Your task to perform on an android device: turn on showing notifications on the lock screen Image 0: 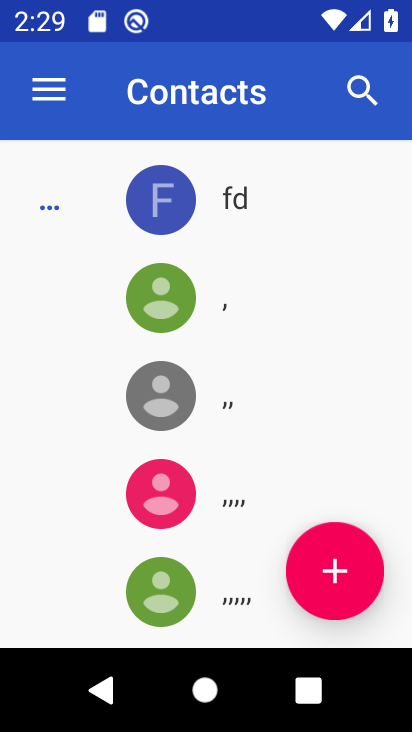
Step 0: drag from (244, 564) to (395, 150)
Your task to perform on an android device: turn on showing notifications on the lock screen Image 1: 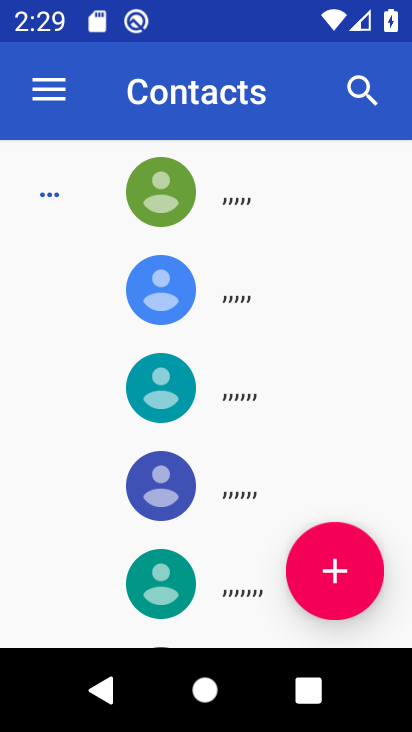
Step 1: drag from (225, 596) to (248, 226)
Your task to perform on an android device: turn on showing notifications on the lock screen Image 2: 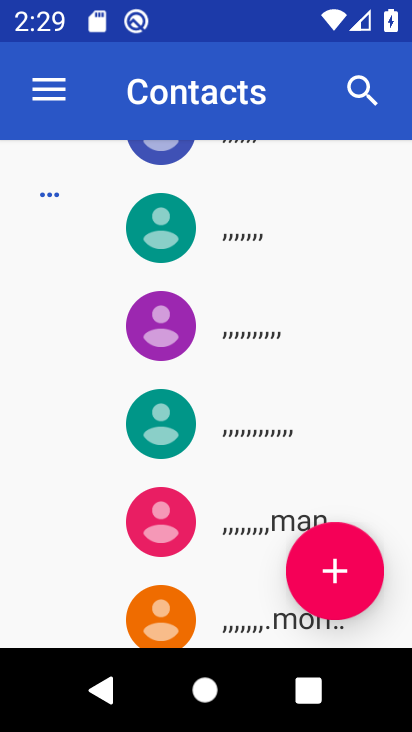
Step 2: drag from (234, 573) to (313, 194)
Your task to perform on an android device: turn on showing notifications on the lock screen Image 3: 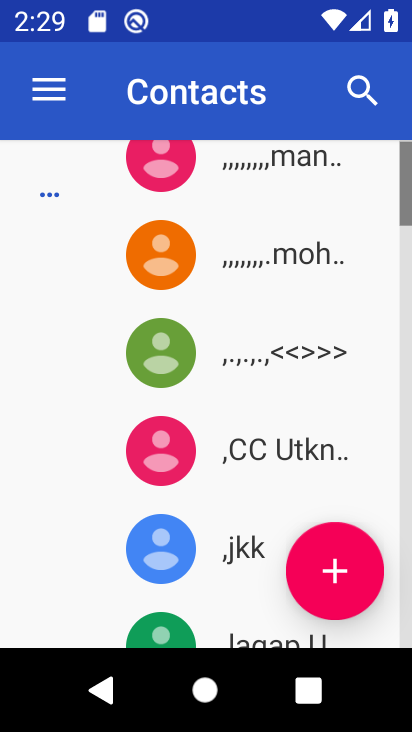
Step 3: drag from (222, 433) to (255, 276)
Your task to perform on an android device: turn on showing notifications on the lock screen Image 4: 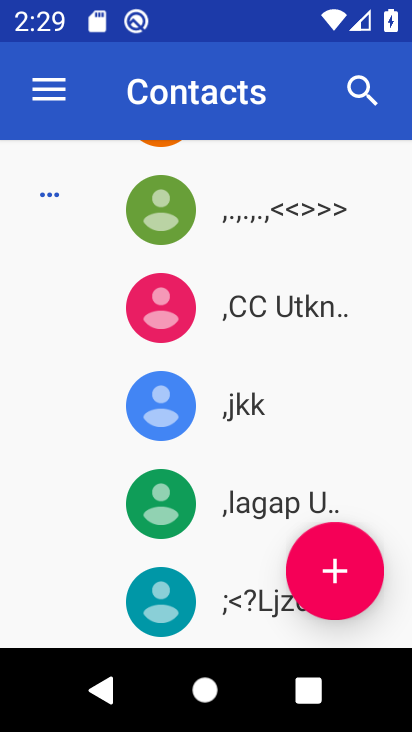
Step 4: press home button
Your task to perform on an android device: turn on showing notifications on the lock screen Image 5: 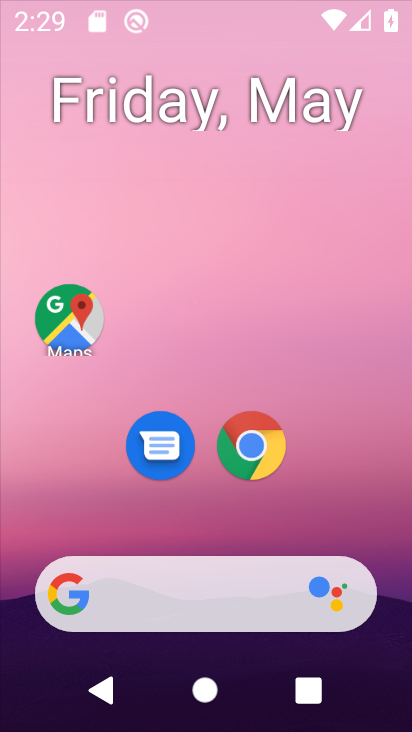
Step 5: drag from (214, 525) to (238, 152)
Your task to perform on an android device: turn on showing notifications on the lock screen Image 6: 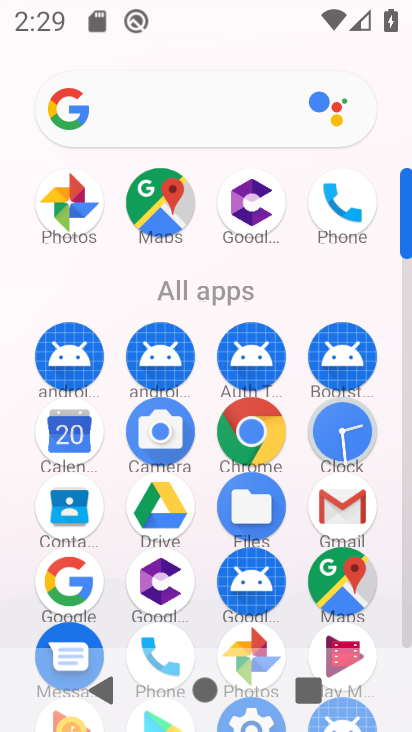
Step 6: drag from (214, 632) to (221, 130)
Your task to perform on an android device: turn on showing notifications on the lock screen Image 7: 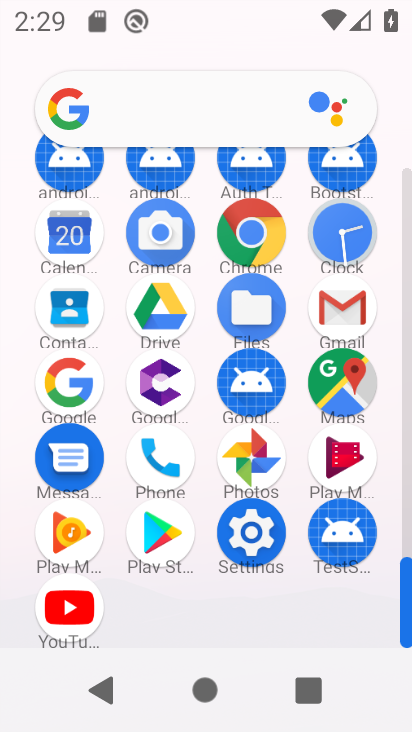
Step 7: drag from (207, 597) to (184, 267)
Your task to perform on an android device: turn on showing notifications on the lock screen Image 8: 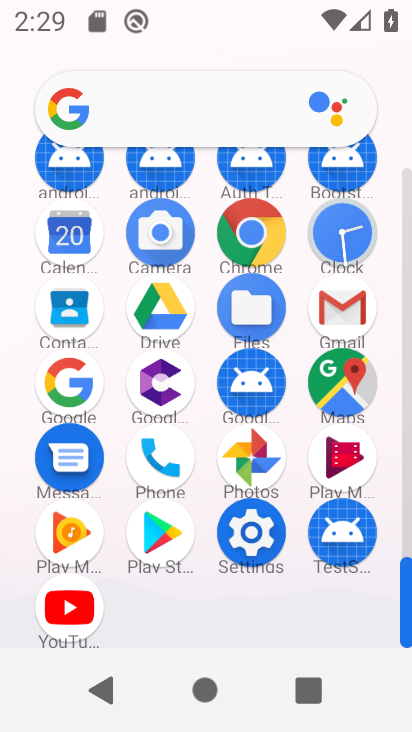
Step 8: click (257, 539)
Your task to perform on an android device: turn on showing notifications on the lock screen Image 9: 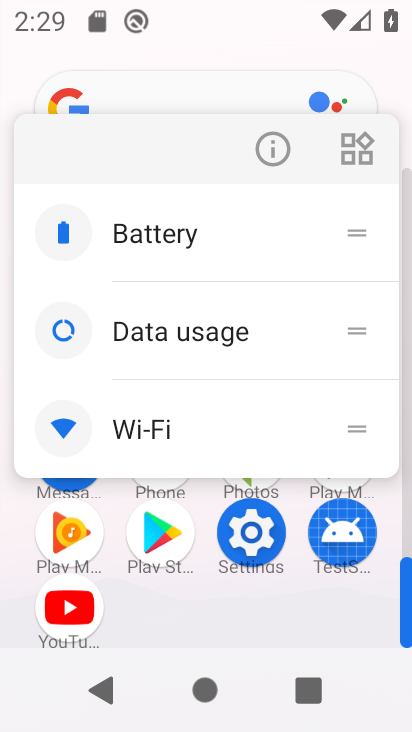
Step 9: click (274, 108)
Your task to perform on an android device: turn on showing notifications on the lock screen Image 10: 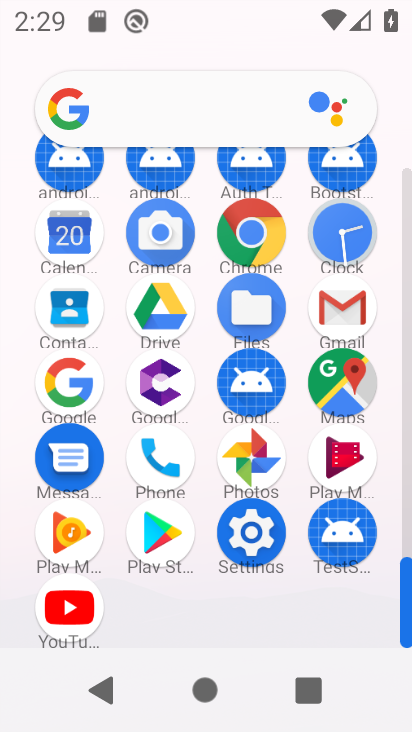
Step 10: click (262, 534)
Your task to perform on an android device: turn on showing notifications on the lock screen Image 11: 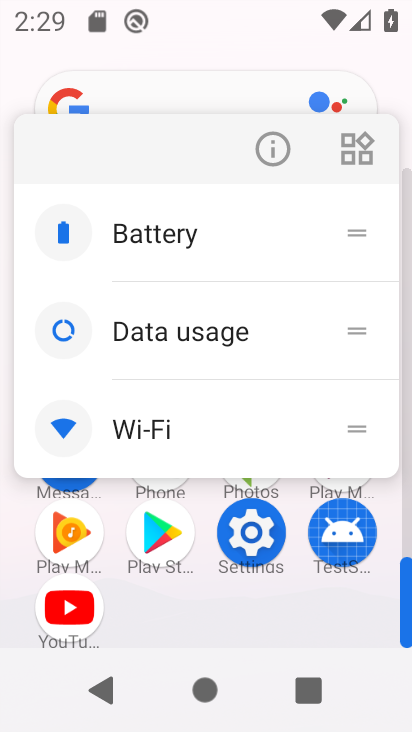
Step 11: click (264, 159)
Your task to perform on an android device: turn on showing notifications on the lock screen Image 12: 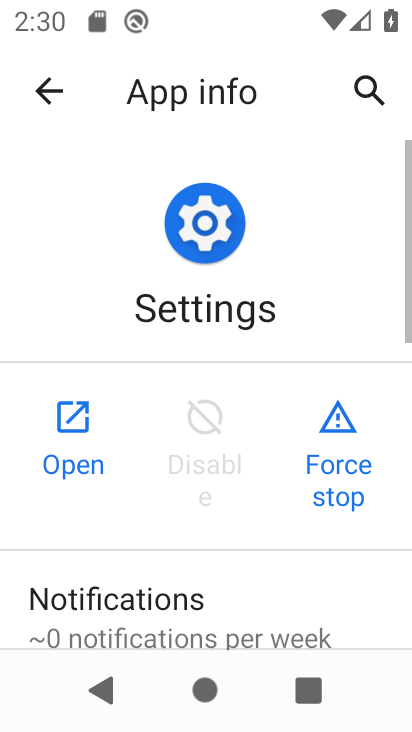
Step 12: click (90, 433)
Your task to perform on an android device: turn on showing notifications on the lock screen Image 13: 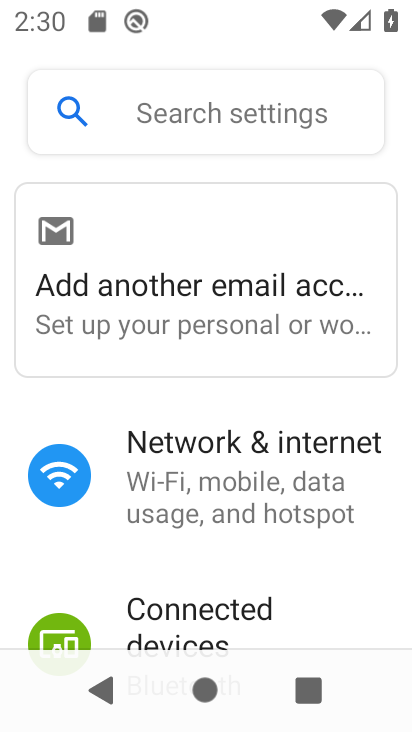
Step 13: drag from (185, 493) to (307, 51)
Your task to perform on an android device: turn on showing notifications on the lock screen Image 14: 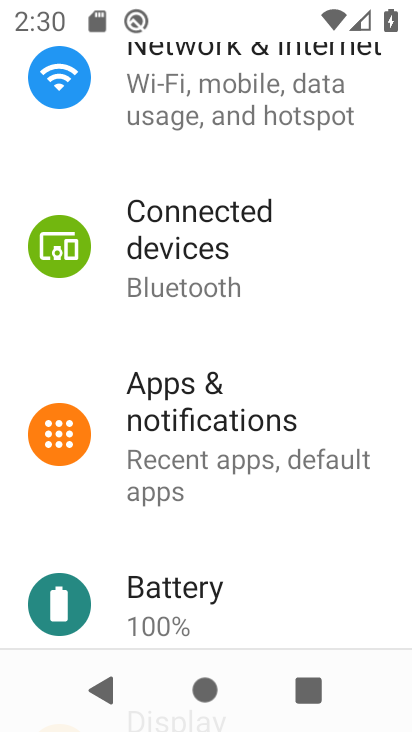
Step 14: drag from (259, 519) to (303, 115)
Your task to perform on an android device: turn on showing notifications on the lock screen Image 15: 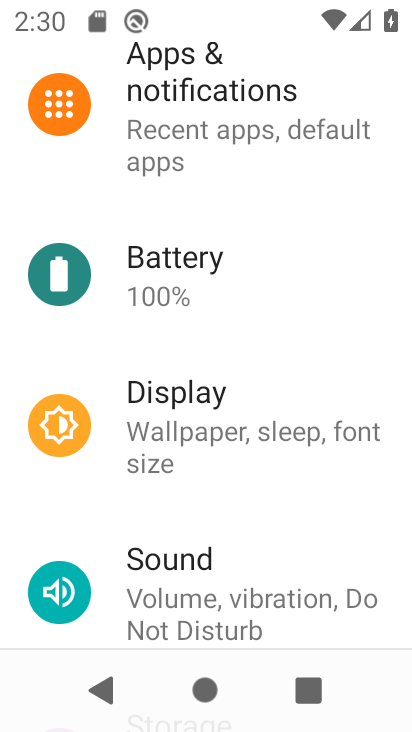
Step 15: drag from (210, 540) to (236, 297)
Your task to perform on an android device: turn on showing notifications on the lock screen Image 16: 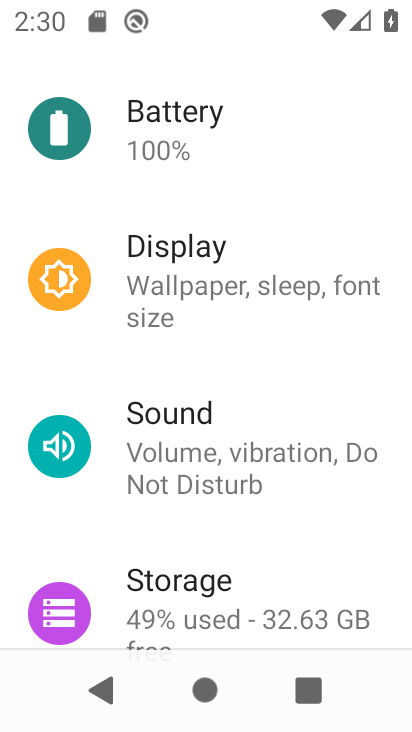
Step 16: drag from (212, 573) to (306, 294)
Your task to perform on an android device: turn on showing notifications on the lock screen Image 17: 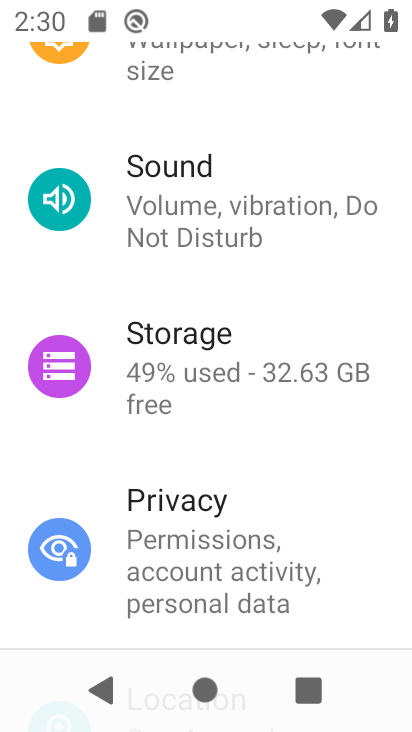
Step 17: drag from (187, 564) to (324, 155)
Your task to perform on an android device: turn on showing notifications on the lock screen Image 18: 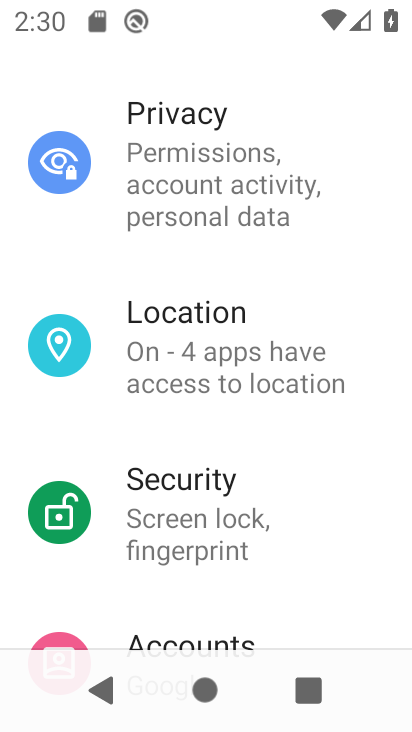
Step 18: drag from (203, 548) to (235, 297)
Your task to perform on an android device: turn on showing notifications on the lock screen Image 19: 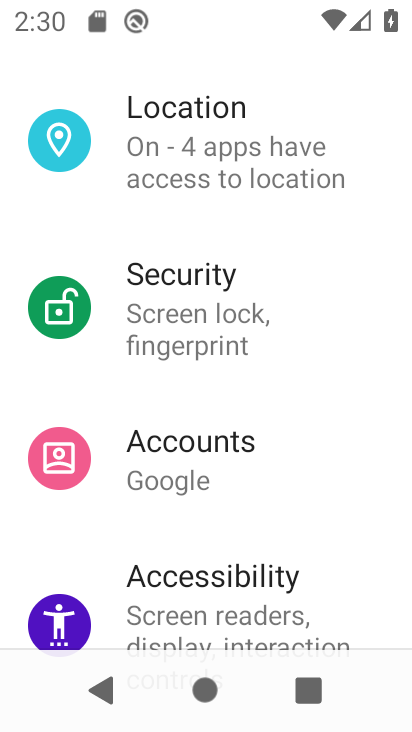
Step 19: drag from (247, 234) to (285, 718)
Your task to perform on an android device: turn on showing notifications on the lock screen Image 20: 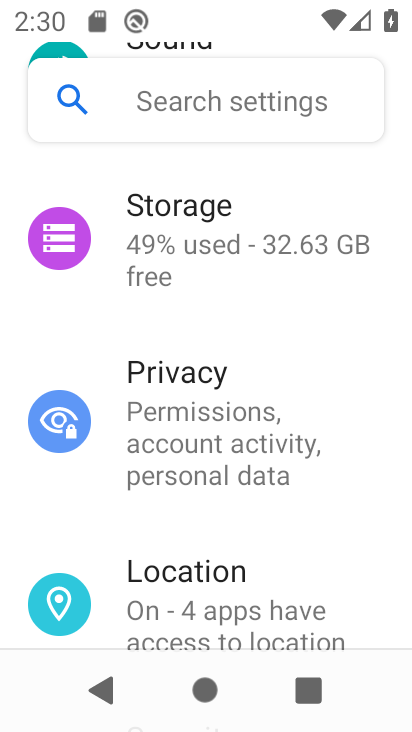
Step 20: drag from (235, 224) to (287, 730)
Your task to perform on an android device: turn on showing notifications on the lock screen Image 21: 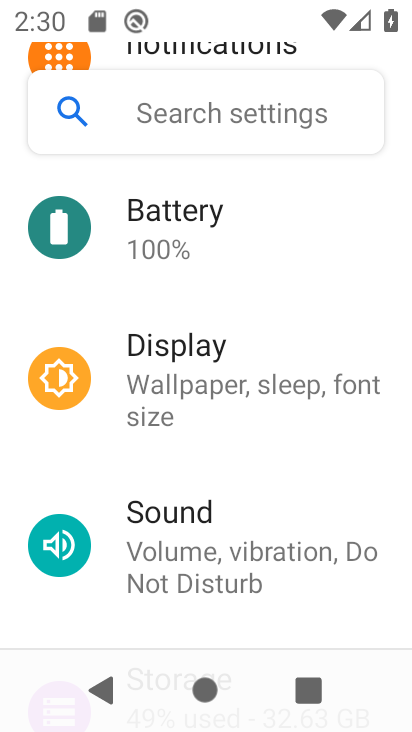
Step 21: drag from (213, 230) to (317, 721)
Your task to perform on an android device: turn on showing notifications on the lock screen Image 22: 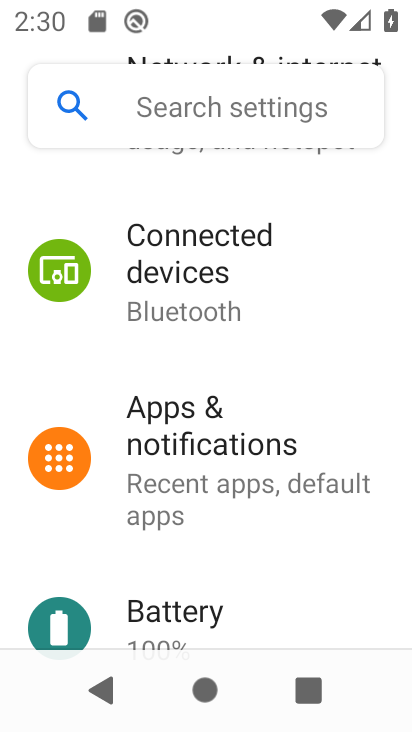
Step 22: click (212, 408)
Your task to perform on an android device: turn on showing notifications on the lock screen Image 23: 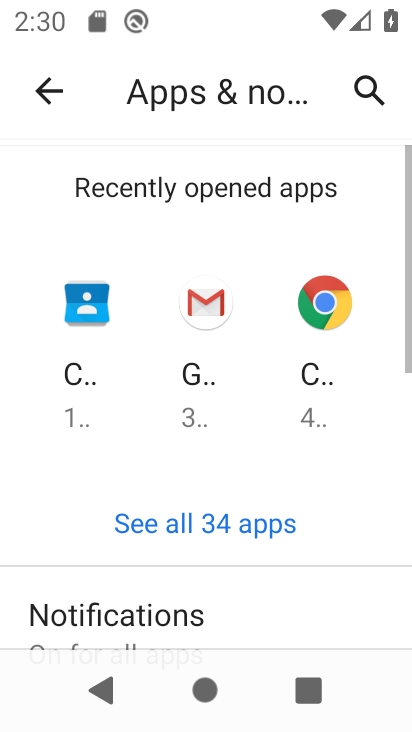
Step 23: drag from (201, 541) to (271, 144)
Your task to perform on an android device: turn on showing notifications on the lock screen Image 24: 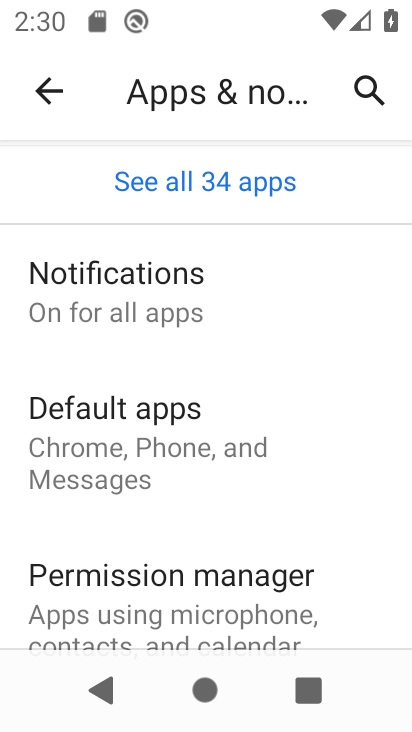
Step 24: click (171, 414)
Your task to perform on an android device: turn on showing notifications on the lock screen Image 25: 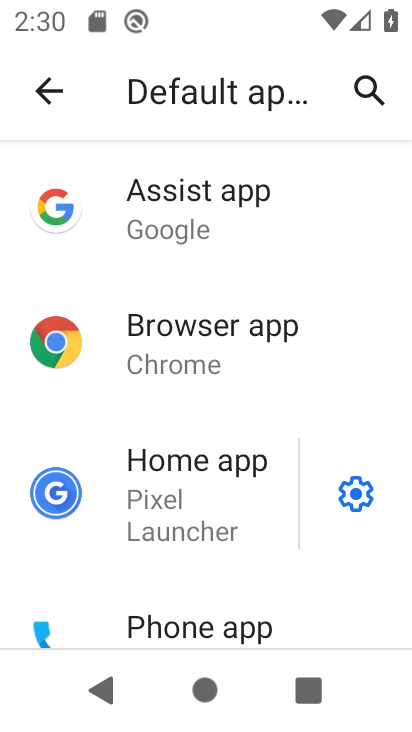
Step 25: drag from (199, 531) to (205, 254)
Your task to perform on an android device: turn on showing notifications on the lock screen Image 26: 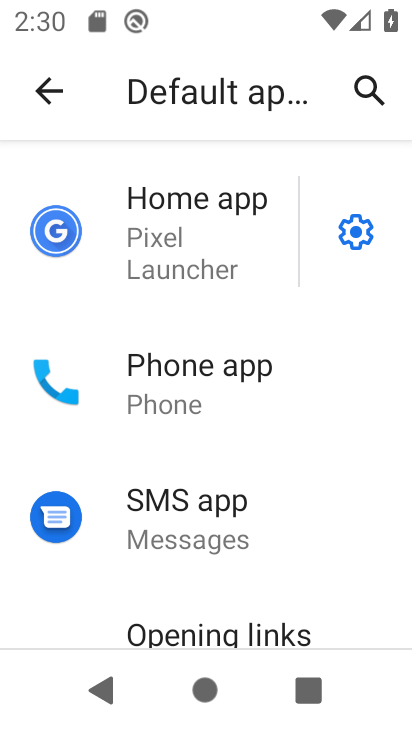
Step 26: drag from (229, 543) to (328, 233)
Your task to perform on an android device: turn on showing notifications on the lock screen Image 27: 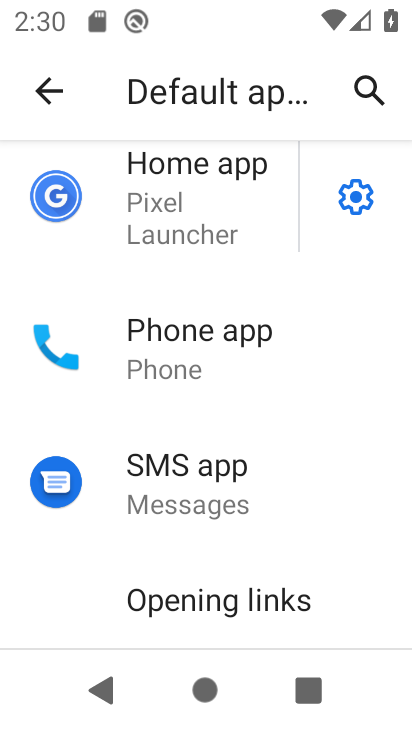
Step 27: drag from (231, 558) to (285, 128)
Your task to perform on an android device: turn on showing notifications on the lock screen Image 28: 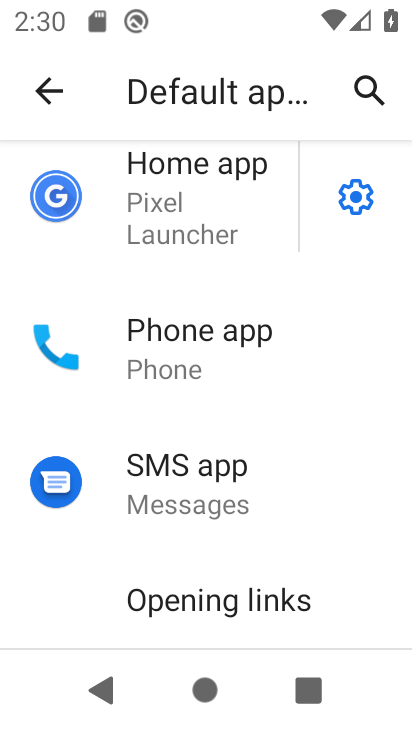
Step 28: drag from (230, 572) to (234, 364)
Your task to perform on an android device: turn on showing notifications on the lock screen Image 29: 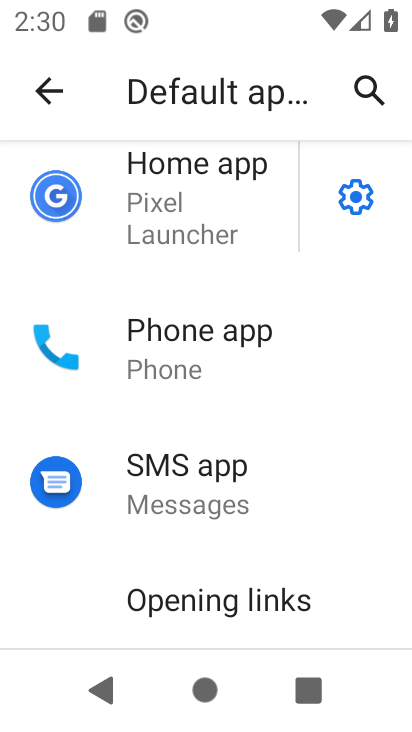
Step 29: drag from (233, 547) to (256, 238)
Your task to perform on an android device: turn on showing notifications on the lock screen Image 30: 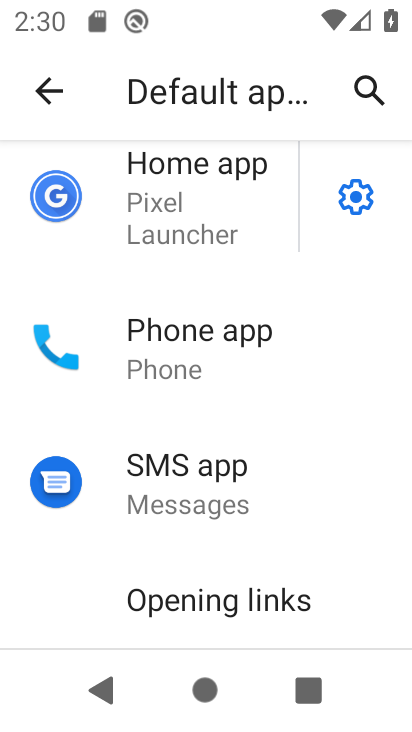
Step 30: drag from (265, 199) to (275, 682)
Your task to perform on an android device: turn on showing notifications on the lock screen Image 31: 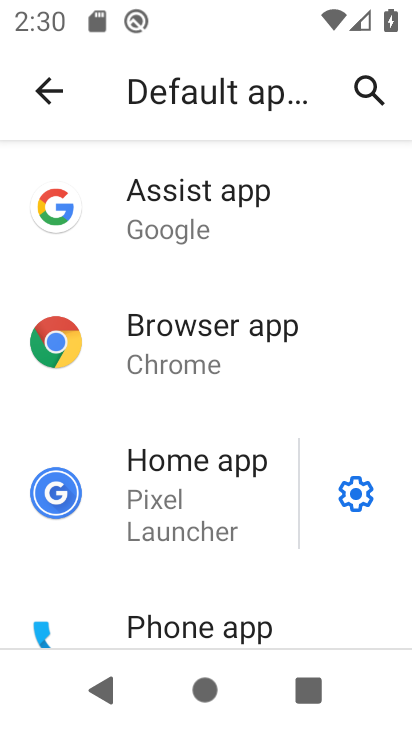
Step 31: drag from (239, 536) to (298, 341)
Your task to perform on an android device: turn on showing notifications on the lock screen Image 32: 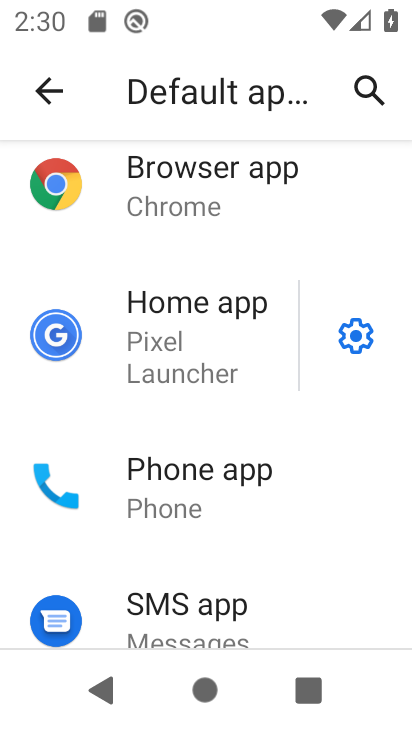
Step 32: drag from (307, 279) to (255, 731)
Your task to perform on an android device: turn on showing notifications on the lock screen Image 33: 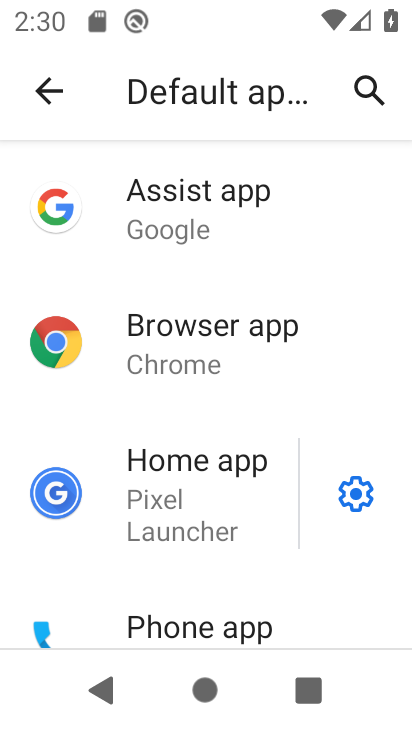
Step 33: drag from (238, 508) to (316, 237)
Your task to perform on an android device: turn on showing notifications on the lock screen Image 34: 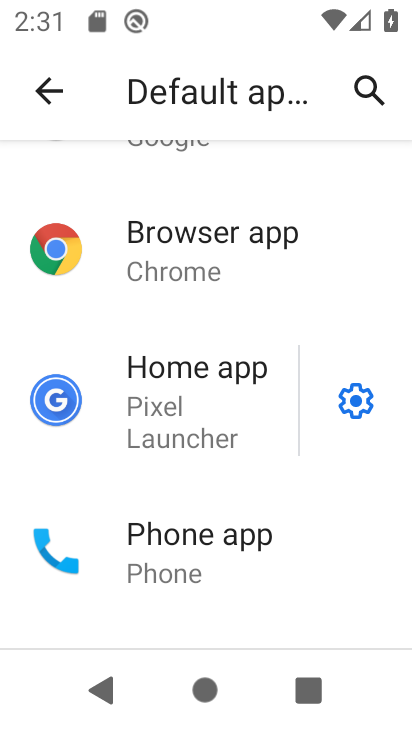
Step 34: click (53, 95)
Your task to perform on an android device: turn on showing notifications on the lock screen Image 35: 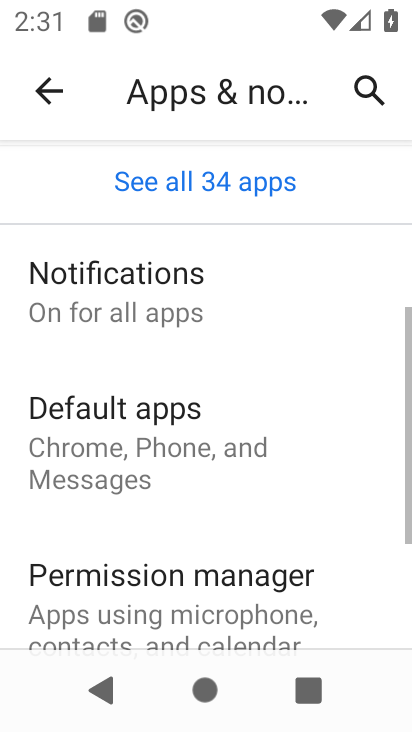
Step 35: drag from (227, 522) to (264, 280)
Your task to perform on an android device: turn on showing notifications on the lock screen Image 36: 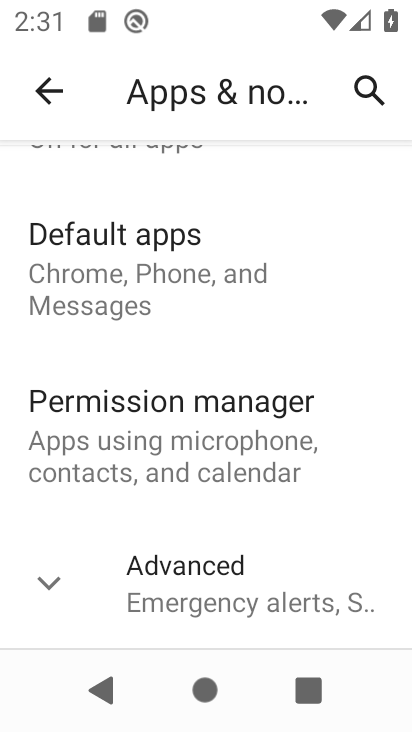
Step 36: click (158, 152)
Your task to perform on an android device: turn on showing notifications on the lock screen Image 37: 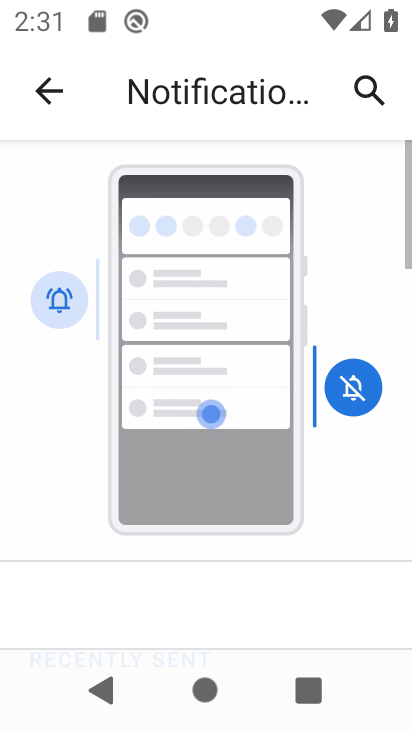
Step 37: drag from (198, 544) to (284, 207)
Your task to perform on an android device: turn on showing notifications on the lock screen Image 38: 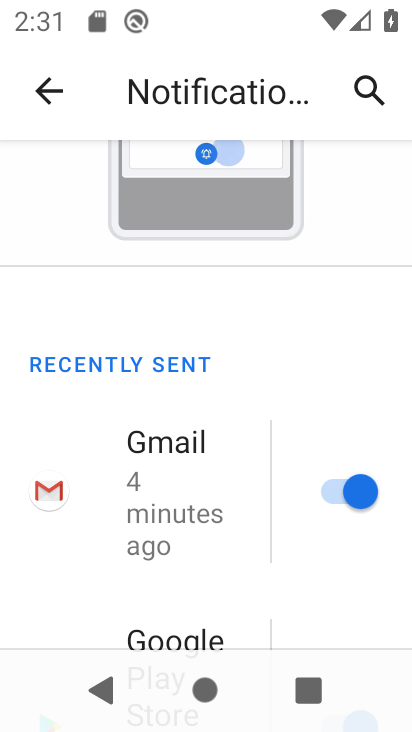
Step 38: drag from (135, 596) to (257, 164)
Your task to perform on an android device: turn on showing notifications on the lock screen Image 39: 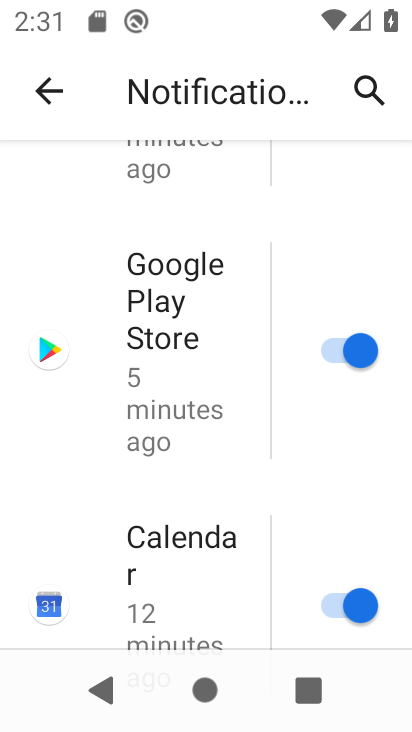
Step 39: drag from (212, 581) to (248, 230)
Your task to perform on an android device: turn on showing notifications on the lock screen Image 40: 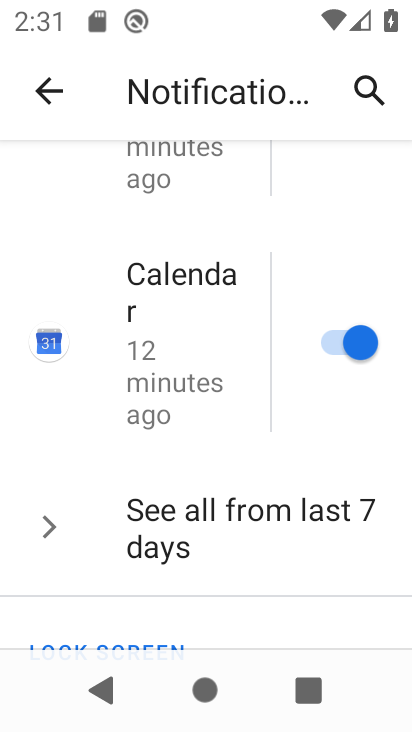
Step 40: drag from (197, 582) to (247, 254)
Your task to perform on an android device: turn on showing notifications on the lock screen Image 41: 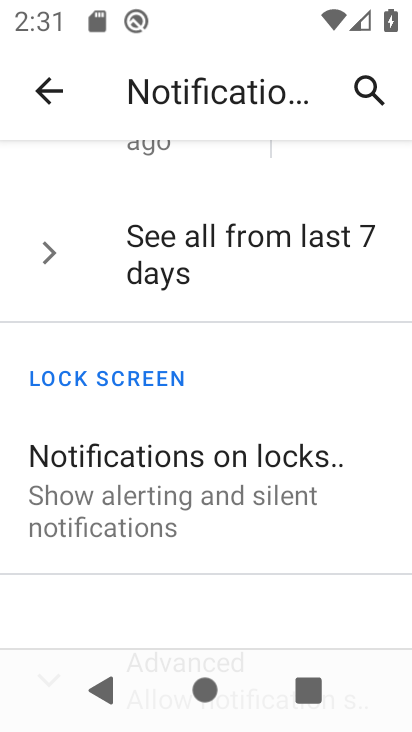
Step 41: drag from (189, 548) to (215, 326)
Your task to perform on an android device: turn on showing notifications on the lock screen Image 42: 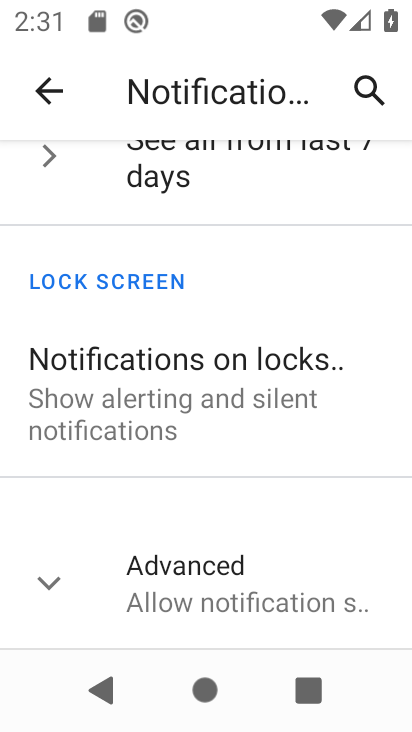
Step 42: click (182, 587)
Your task to perform on an android device: turn on showing notifications on the lock screen Image 43: 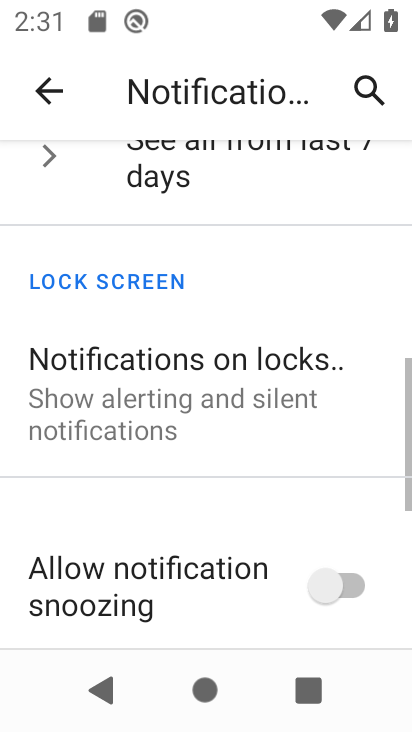
Step 43: drag from (252, 586) to (276, 355)
Your task to perform on an android device: turn on showing notifications on the lock screen Image 44: 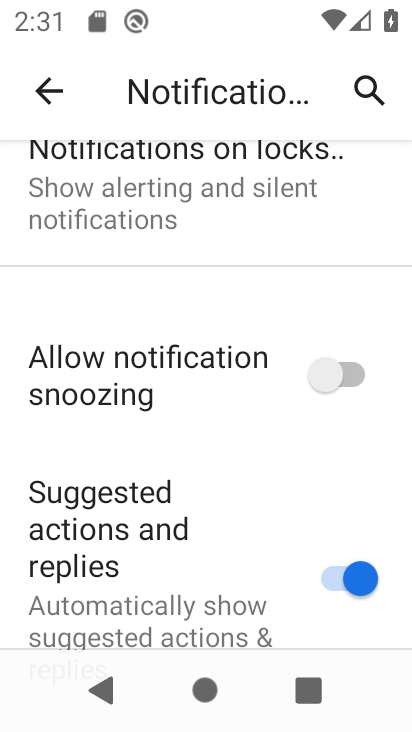
Step 44: drag from (210, 537) to (250, 176)
Your task to perform on an android device: turn on showing notifications on the lock screen Image 45: 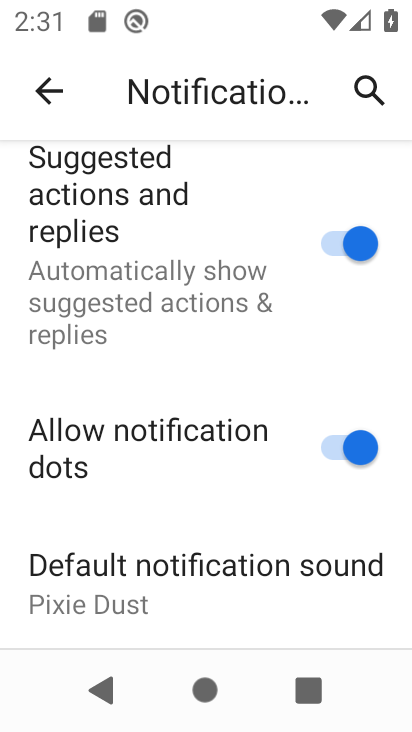
Step 45: drag from (222, 264) to (373, 715)
Your task to perform on an android device: turn on showing notifications on the lock screen Image 46: 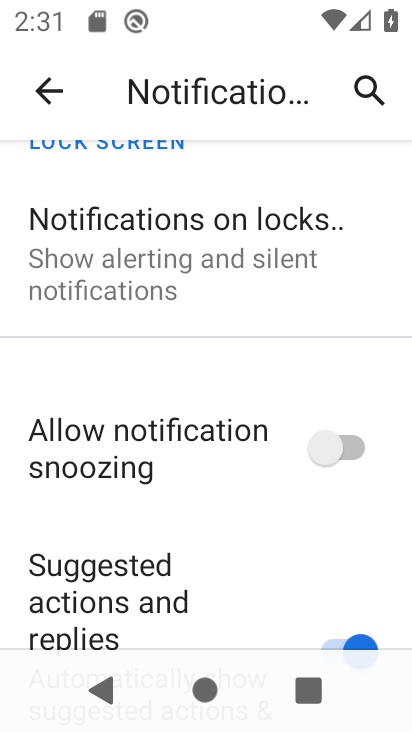
Step 46: click (221, 283)
Your task to perform on an android device: turn on showing notifications on the lock screen Image 47: 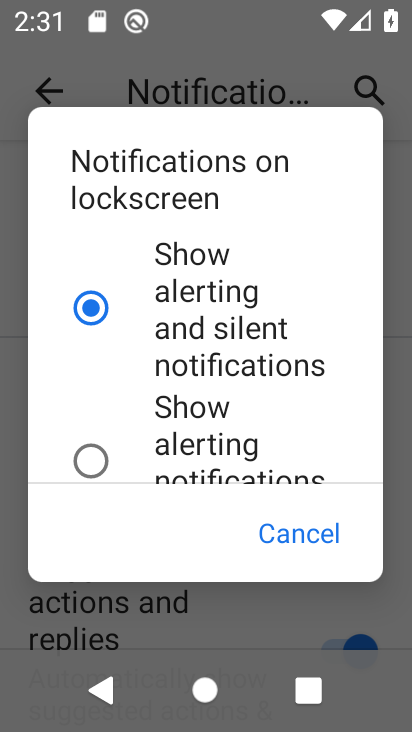
Step 47: click (160, 428)
Your task to perform on an android device: turn on showing notifications on the lock screen Image 48: 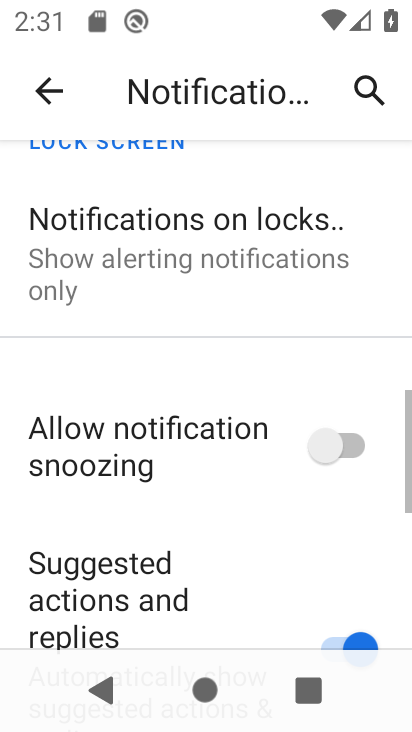
Step 48: task complete